Your task to perform on an android device: turn on wifi Image 0: 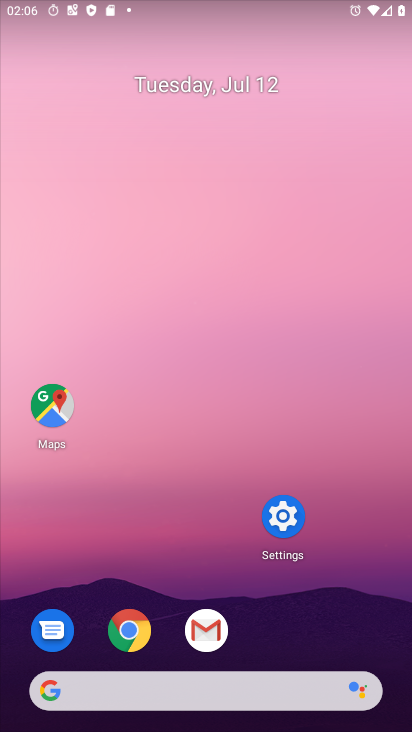
Step 0: click (284, 534)
Your task to perform on an android device: turn on wifi Image 1: 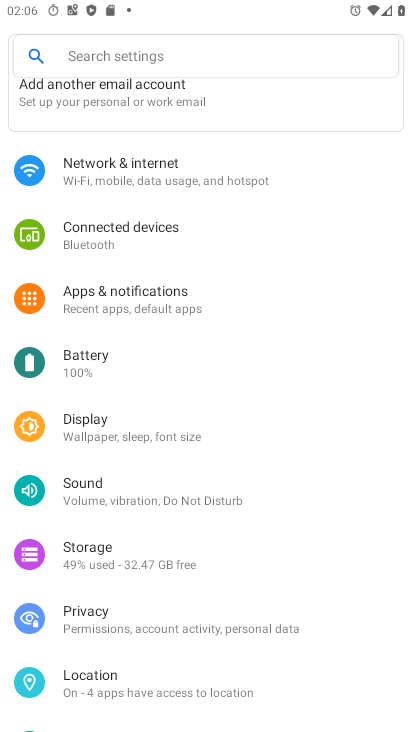
Step 1: click (155, 173)
Your task to perform on an android device: turn on wifi Image 2: 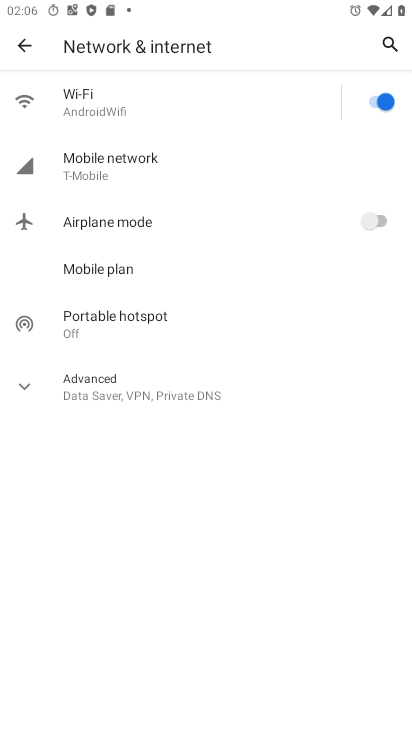
Step 2: click (109, 111)
Your task to perform on an android device: turn on wifi Image 3: 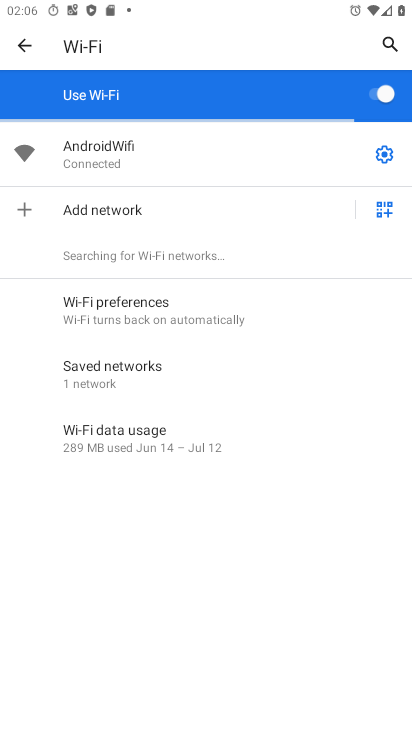
Step 3: click (379, 90)
Your task to perform on an android device: turn on wifi Image 4: 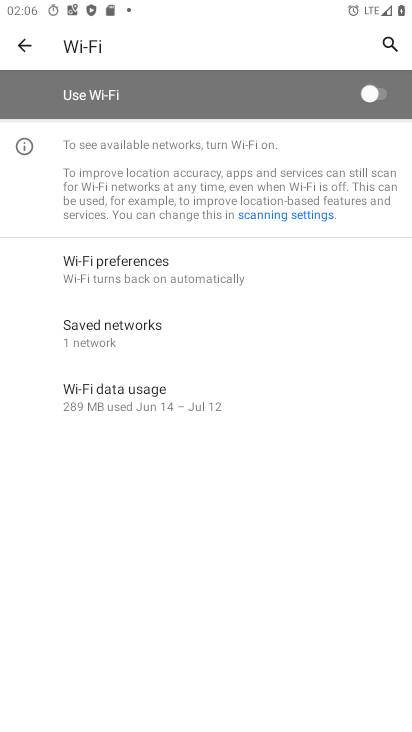
Step 4: click (376, 98)
Your task to perform on an android device: turn on wifi Image 5: 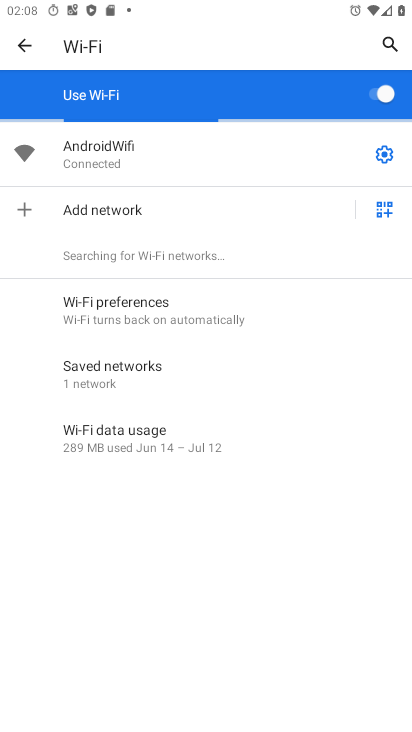
Step 5: task complete